Your task to perform on an android device: Open Google Chrome and open the bookmarks view Image 0: 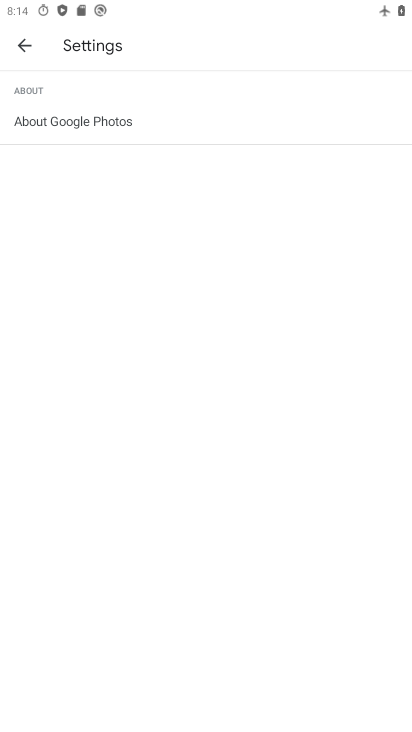
Step 0: press home button
Your task to perform on an android device: Open Google Chrome and open the bookmarks view Image 1: 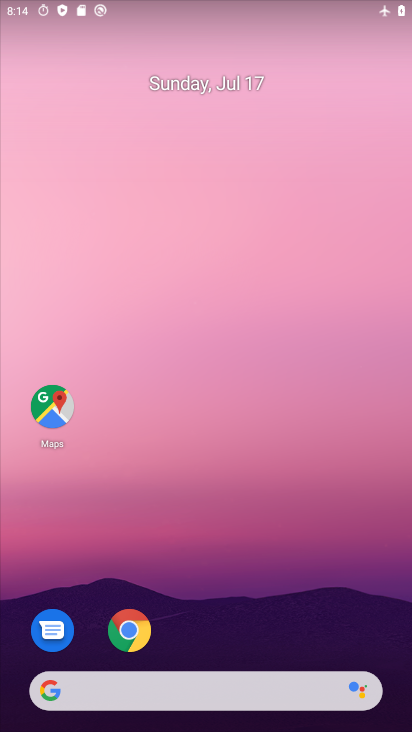
Step 1: click (129, 639)
Your task to perform on an android device: Open Google Chrome and open the bookmarks view Image 2: 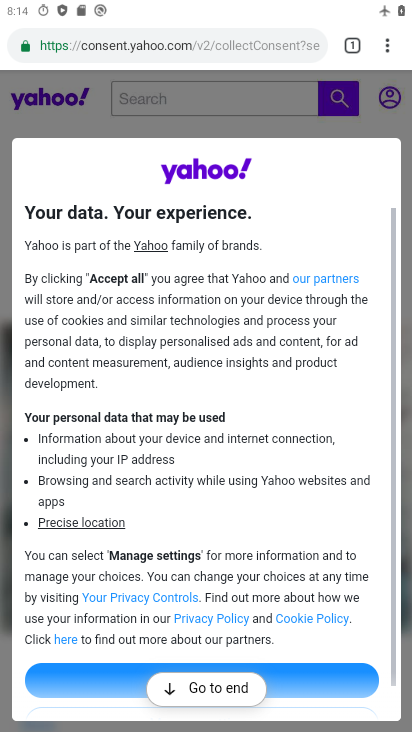
Step 2: click (385, 46)
Your task to perform on an android device: Open Google Chrome and open the bookmarks view Image 3: 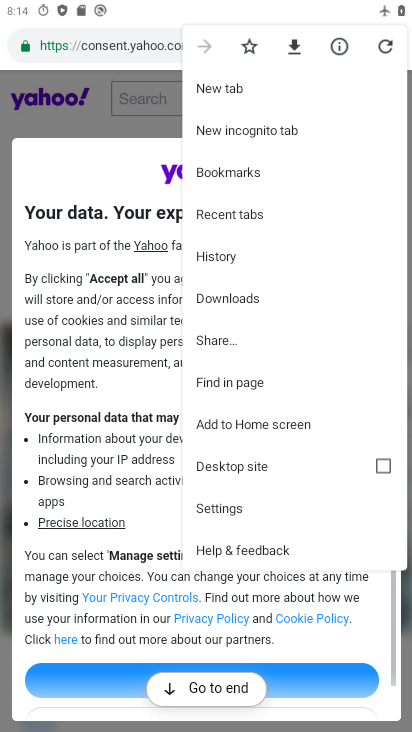
Step 3: click (244, 168)
Your task to perform on an android device: Open Google Chrome and open the bookmarks view Image 4: 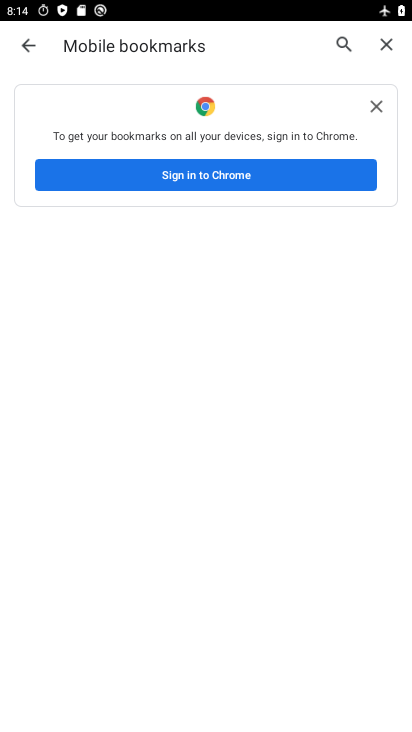
Step 4: task complete